Your task to perform on an android device: Open ESPN.com Image 0: 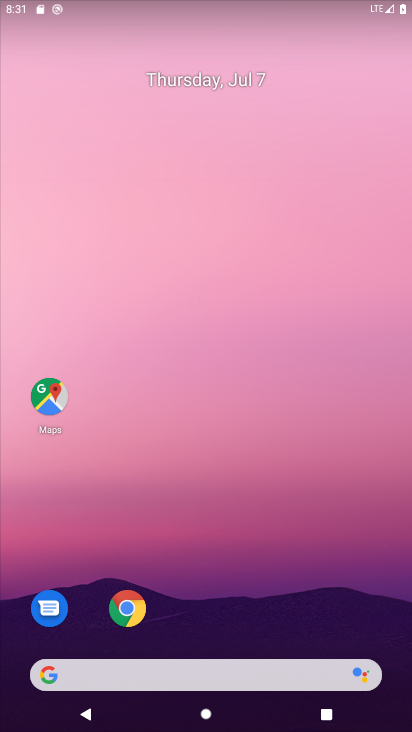
Step 0: drag from (364, 602) to (356, 93)
Your task to perform on an android device: Open ESPN.com Image 1: 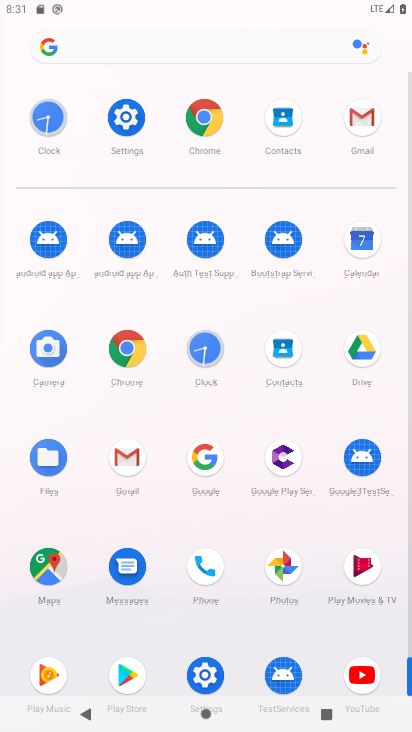
Step 1: click (213, 118)
Your task to perform on an android device: Open ESPN.com Image 2: 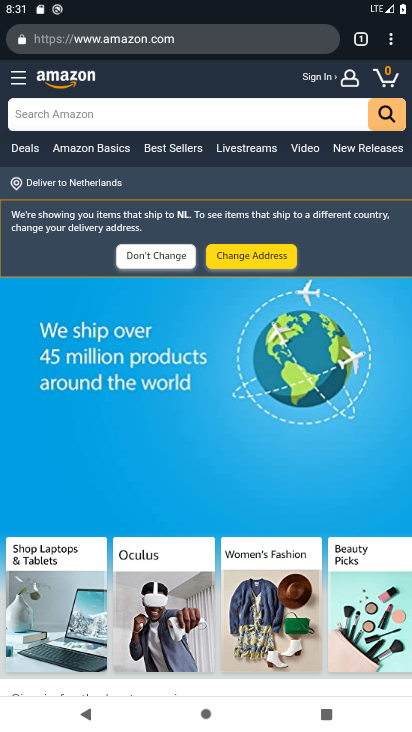
Step 2: click (179, 40)
Your task to perform on an android device: Open ESPN.com Image 3: 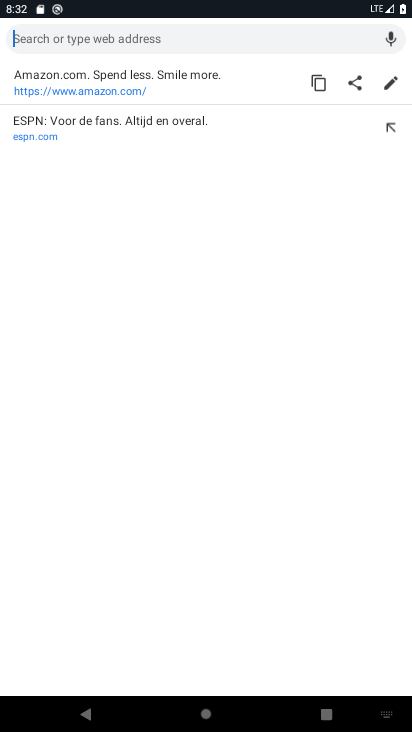
Step 3: type "espn.com"
Your task to perform on an android device: Open ESPN.com Image 4: 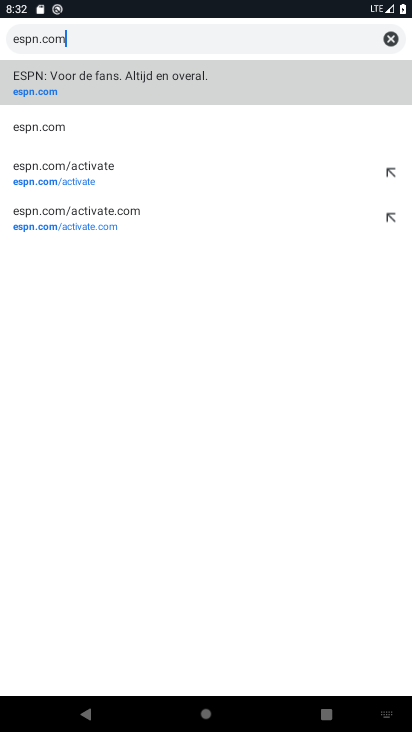
Step 4: click (189, 81)
Your task to perform on an android device: Open ESPN.com Image 5: 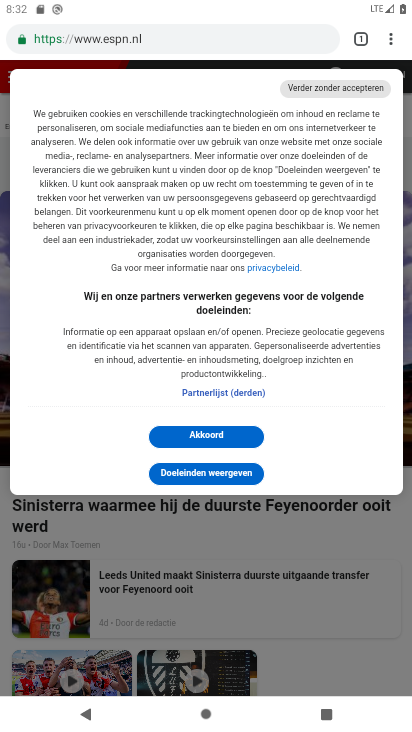
Step 5: task complete